Your task to perform on an android device: Go to internet settings Image 0: 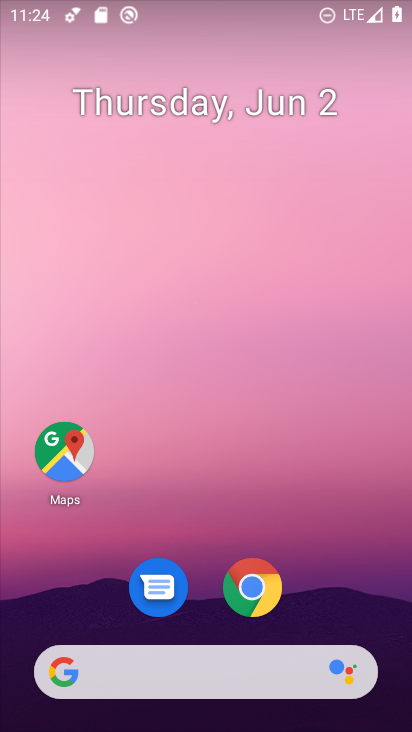
Step 0: drag from (364, 616) to (294, 172)
Your task to perform on an android device: Go to internet settings Image 1: 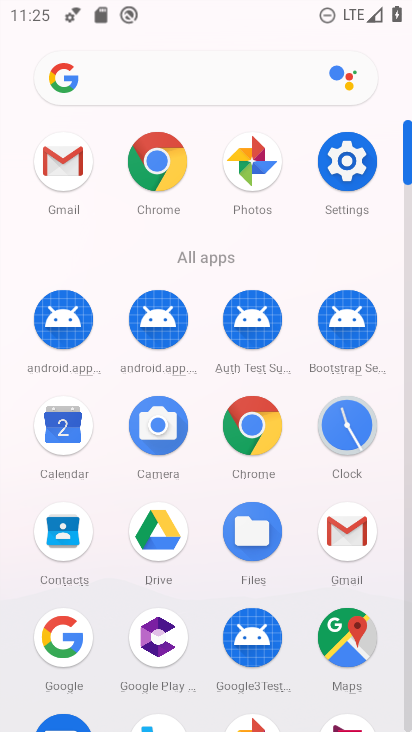
Step 1: click (339, 160)
Your task to perform on an android device: Go to internet settings Image 2: 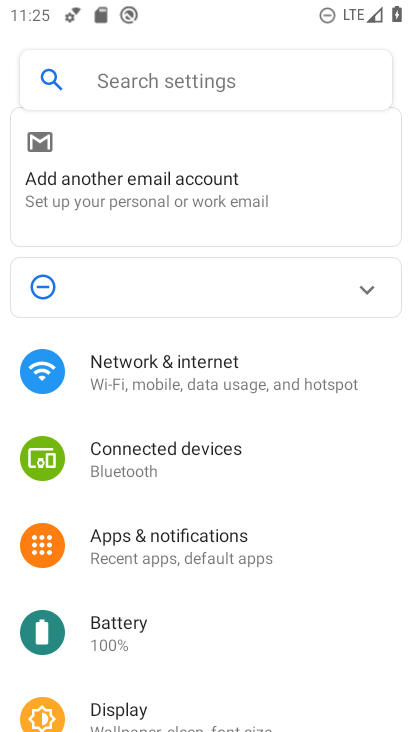
Step 2: click (262, 390)
Your task to perform on an android device: Go to internet settings Image 3: 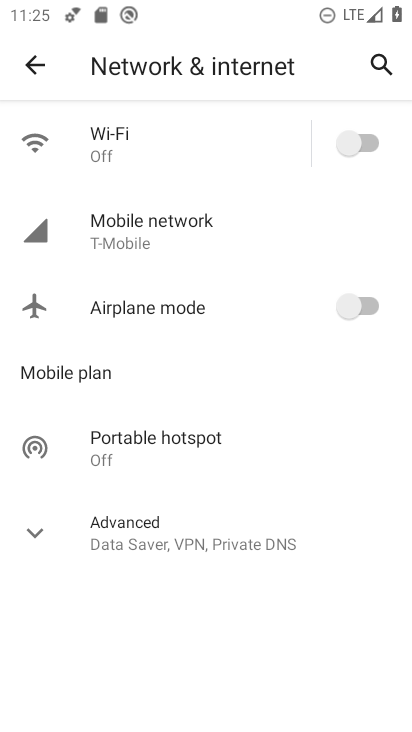
Step 3: task complete